Your task to perform on an android device: turn off picture-in-picture Image 0: 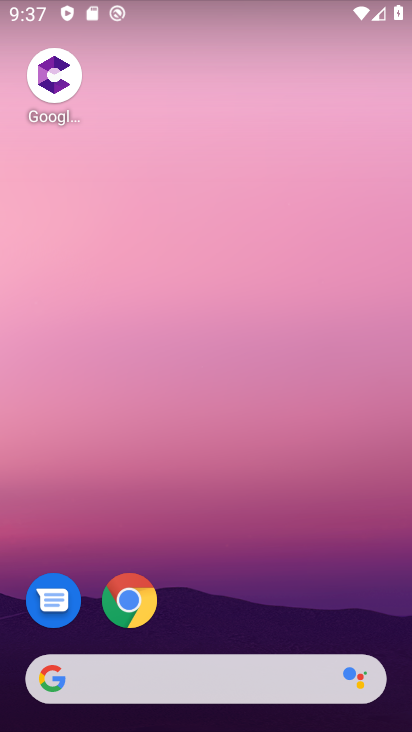
Step 0: drag from (216, 658) to (282, 148)
Your task to perform on an android device: turn off picture-in-picture Image 1: 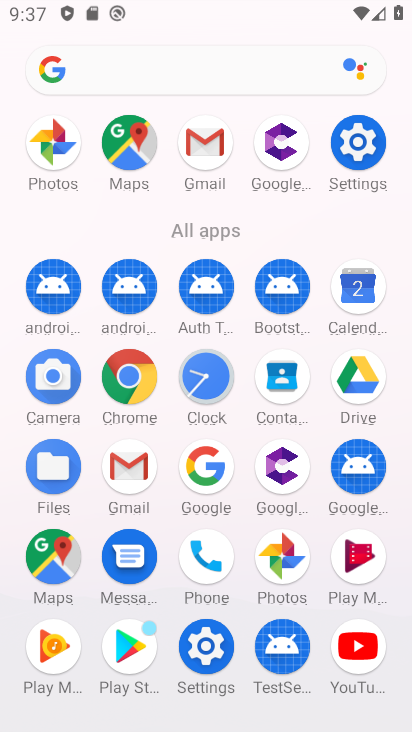
Step 1: drag from (143, 598) to (201, 335)
Your task to perform on an android device: turn off picture-in-picture Image 2: 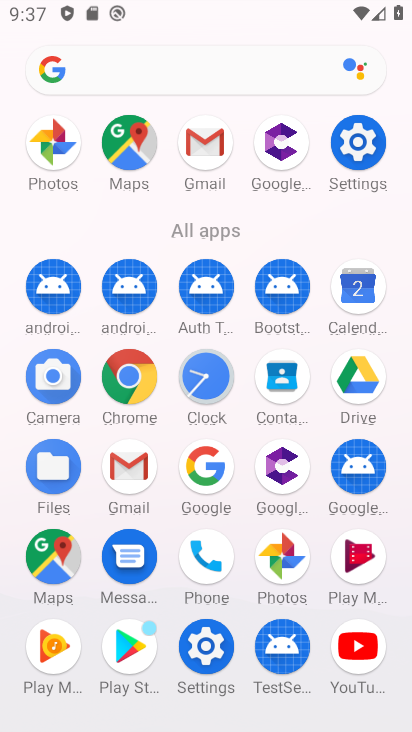
Step 2: click (206, 659)
Your task to perform on an android device: turn off picture-in-picture Image 3: 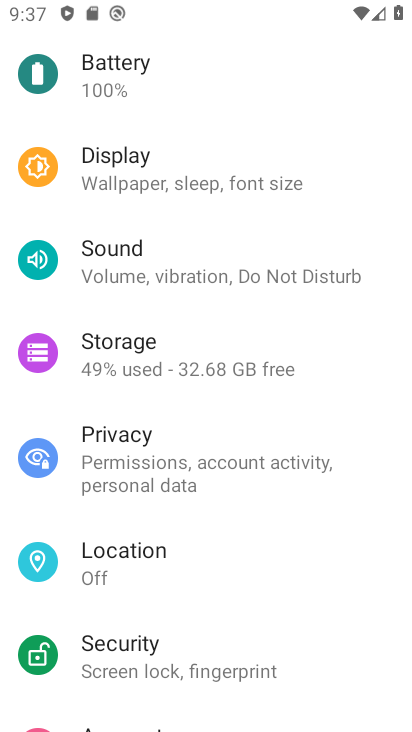
Step 3: drag from (113, 494) to (103, 626)
Your task to perform on an android device: turn off picture-in-picture Image 4: 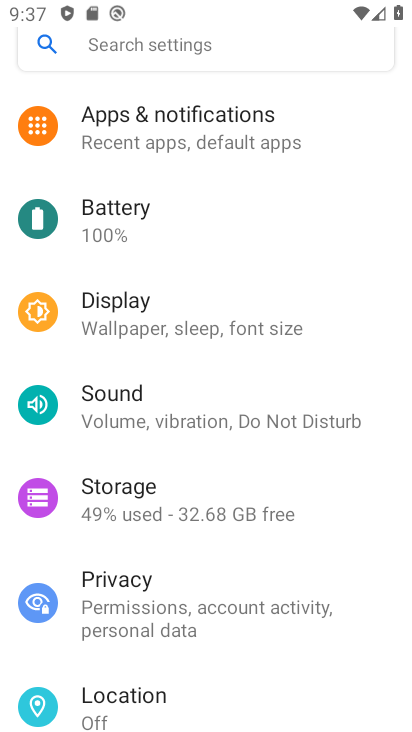
Step 4: click (202, 143)
Your task to perform on an android device: turn off picture-in-picture Image 5: 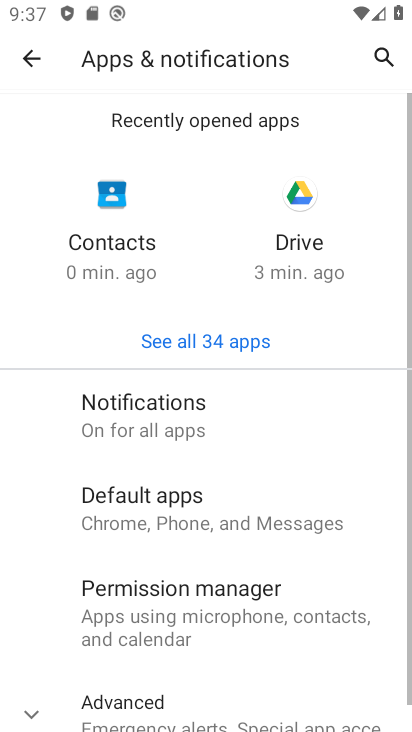
Step 5: drag from (167, 584) to (256, 191)
Your task to perform on an android device: turn off picture-in-picture Image 6: 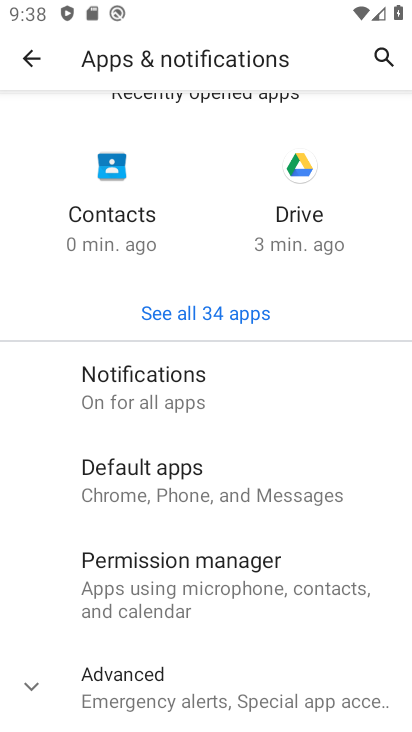
Step 6: click (171, 683)
Your task to perform on an android device: turn off picture-in-picture Image 7: 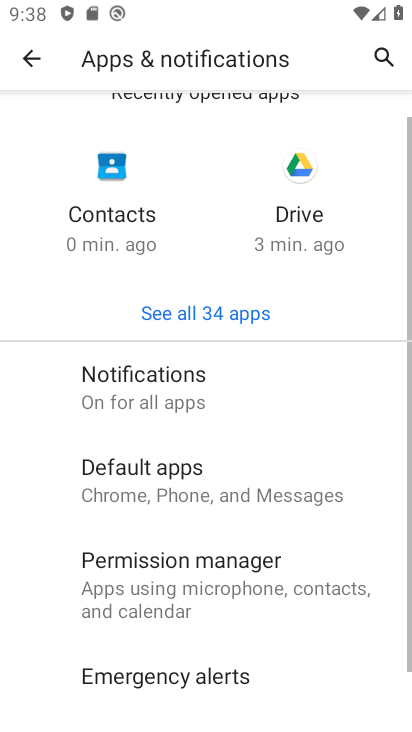
Step 7: drag from (172, 673) to (281, 323)
Your task to perform on an android device: turn off picture-in-picture Image 8: 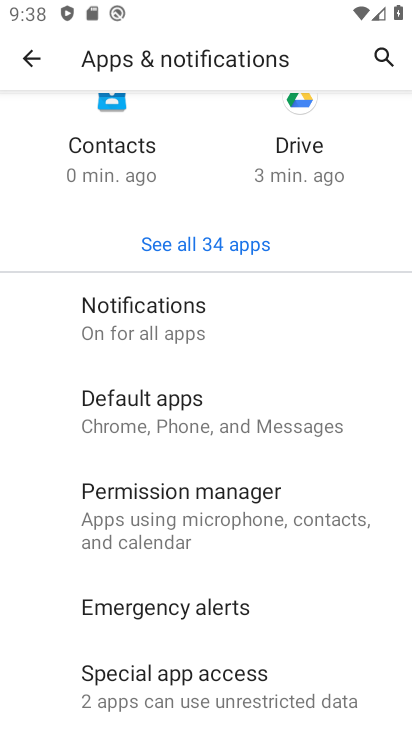
Step 8: click (214, 684)
Your task to perform on an android device: turn off picture-in-picture Image 9: 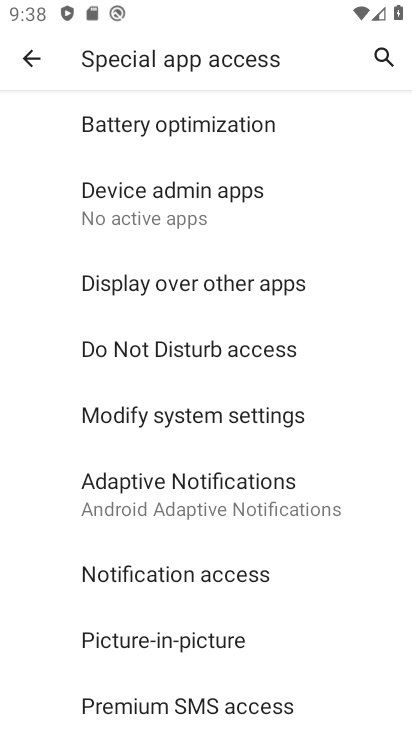
Step 9: click (217, 634)
Your task to perform on an android device: turn off picture-in-picture Image 10: 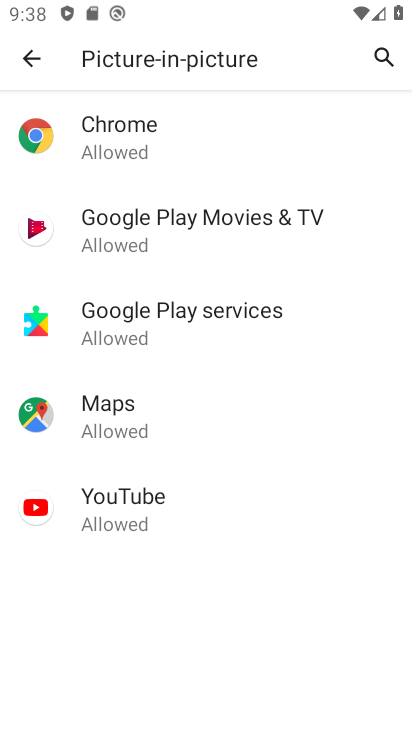
Step 10: click (200, 156)
Your task to perform on an android device: turn off picture-in-picture Image 11: 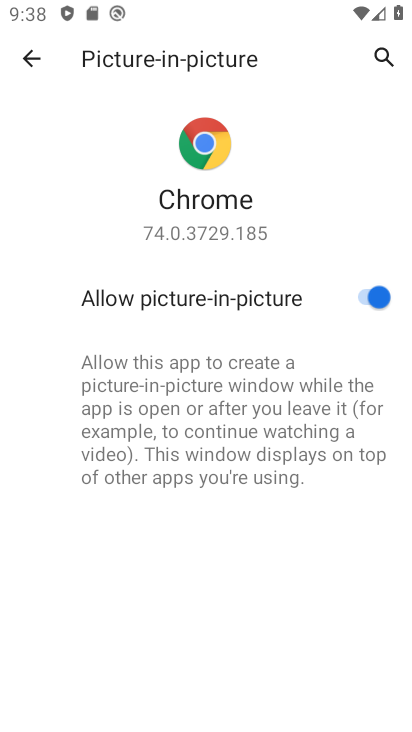
Step 11: click (368, 298)
Your task to perform on an android device: turn off picture-in-picture Image 12: 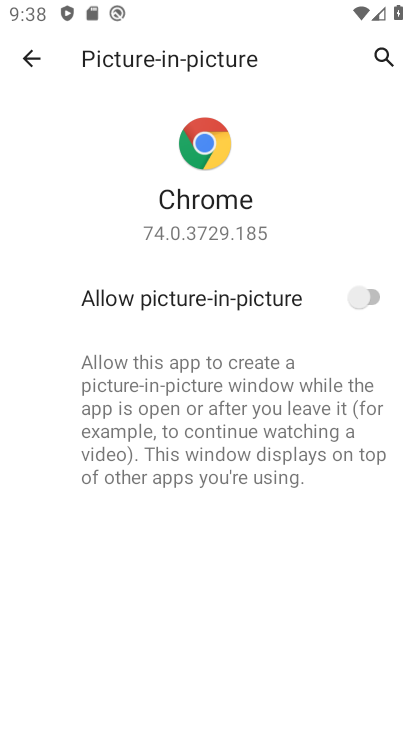
Step 12: click (33, 62)
Your task to perform on an android device: turn off picture-in-picture Image 13: 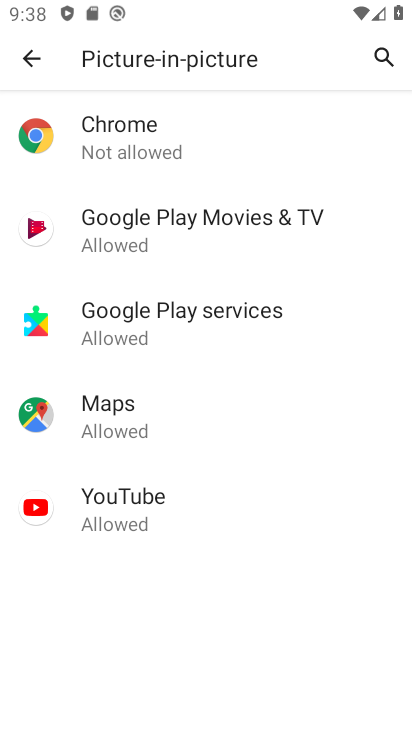
Step 13: click (299, 224)
Your task to perform on an android device: turn off picture-in-picture Image 14: 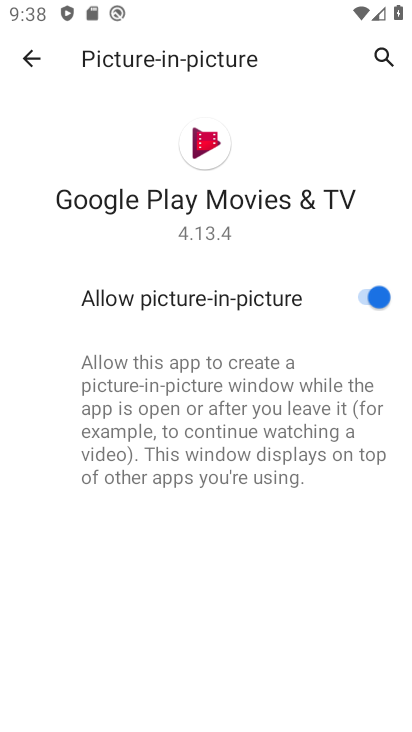
Step 14: click (359, 301)
Your task to perform on an android device: turn off picture-in-picture Image 15: 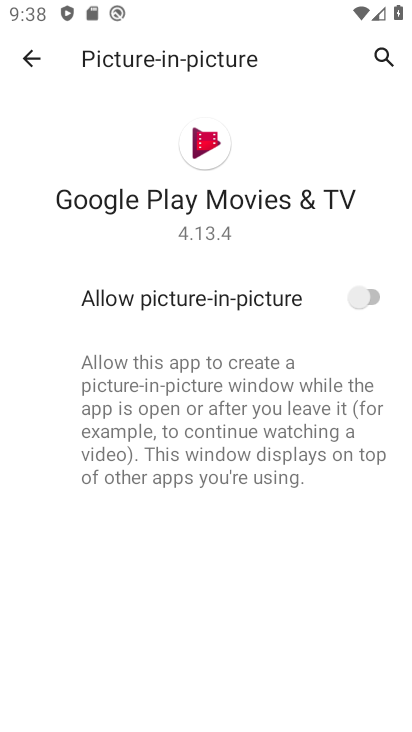
Step 15: click (37, 57)
Your task to perform on an android device: turn off picture-in-picture Image 16: 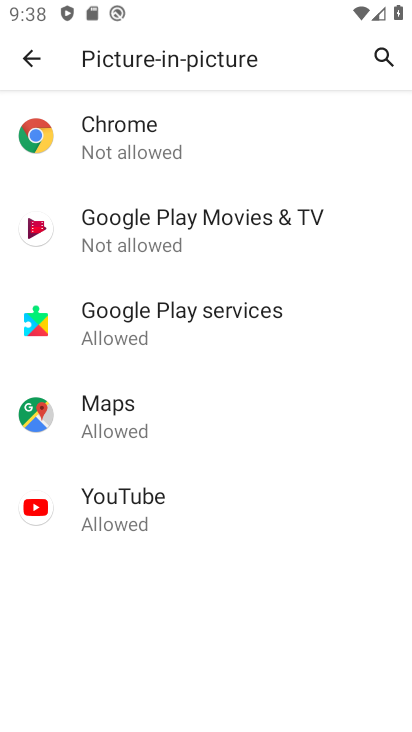
Step 16: click (165, 317)
Your task to perform on an android device: turn off picture-in-picture Image 17: 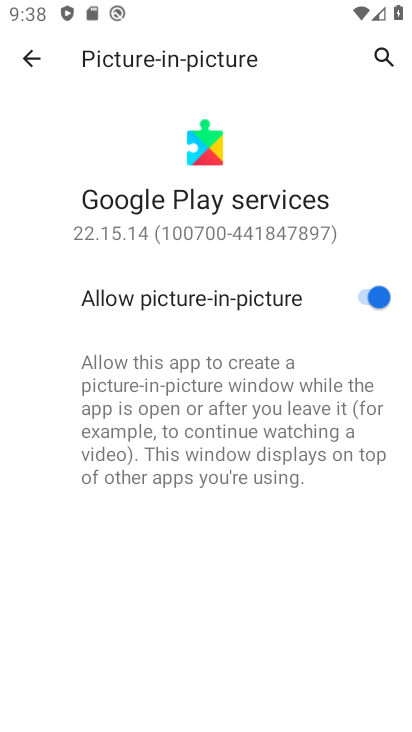
Step 17: click (365, 295)
Your task to perform on an android device: turn off picture-in-picture Image 18: 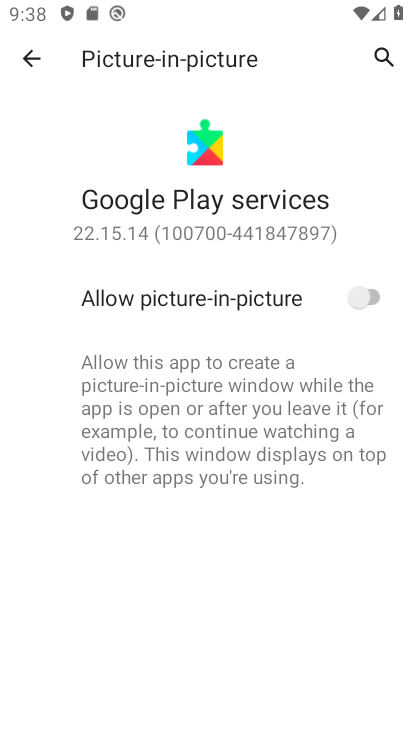
Step 18: click (44, 61)
Your task to perform on an android device: turn off picture-in-picture Image 19: 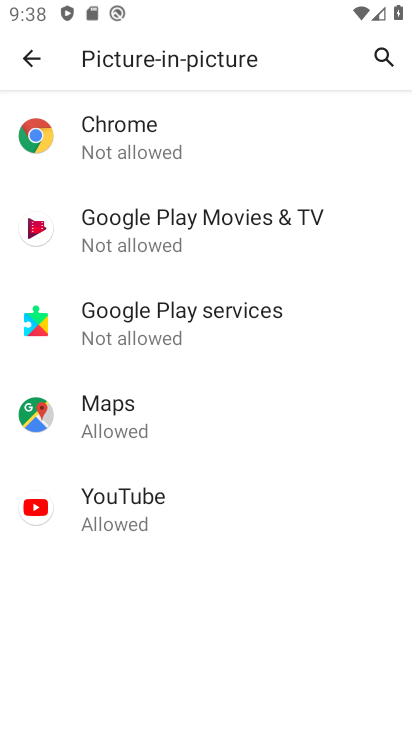
Step 19: click (194, 425)
Your task to perform on an android device: turn off picture-in-picture Image 20: 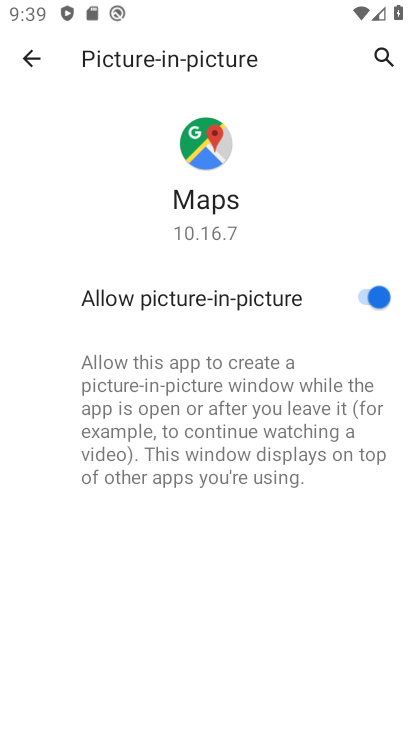
Step 20: click (358, 299)
Your task to perform on an android device: turn off picture-in-picture Image 21: 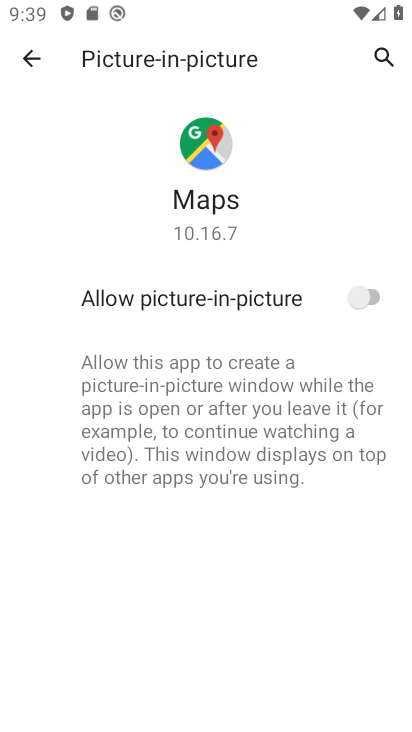
Step 21: click (43, 63)
Your task to perform on an android device: turn off picture-in-picture Image 22: 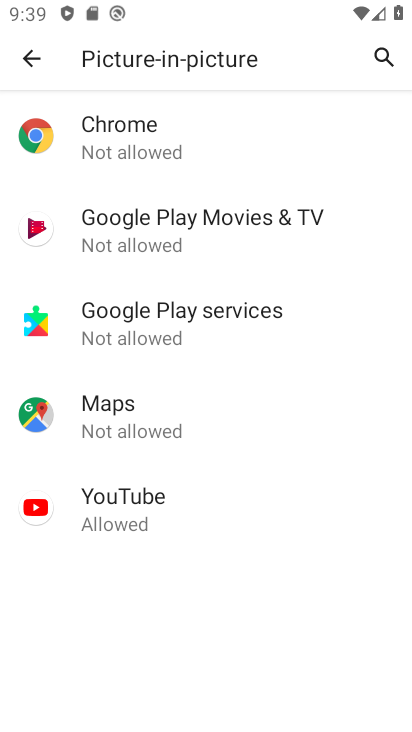
Step 22: click (194, 522)
Your task to perform on an android device: turn off picture-in-picture Image 23: 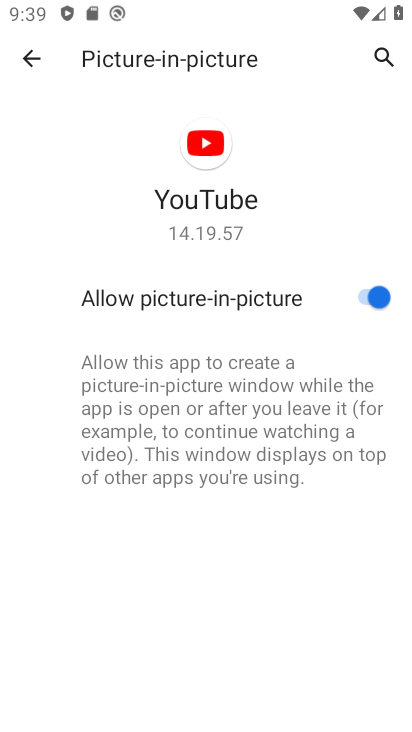
Step 23: click (361, 302)
Your task to perform on an android device: turn off picture-in-picture Image 24: 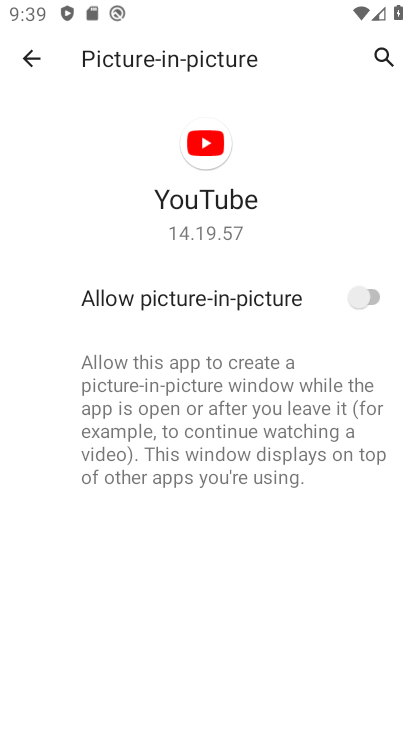
Step 24: task complete